Your task to perform on an android device: Open Android settings Image 0: 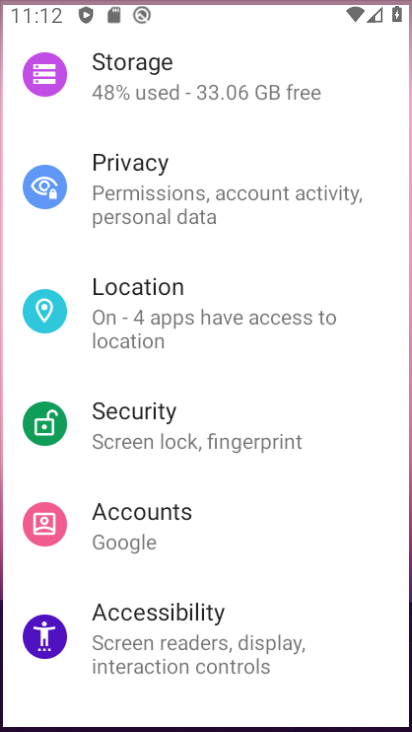
Step 0: click (227, 677)
Your task to perform on an android device: Open Android settings Image 1: 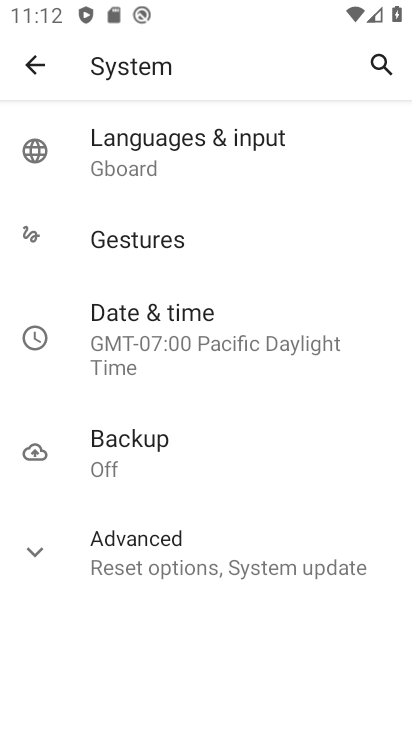
Step 1: task complete